Your task to perform on an android device: remove spam from my inbox in the gmail app Image 0: 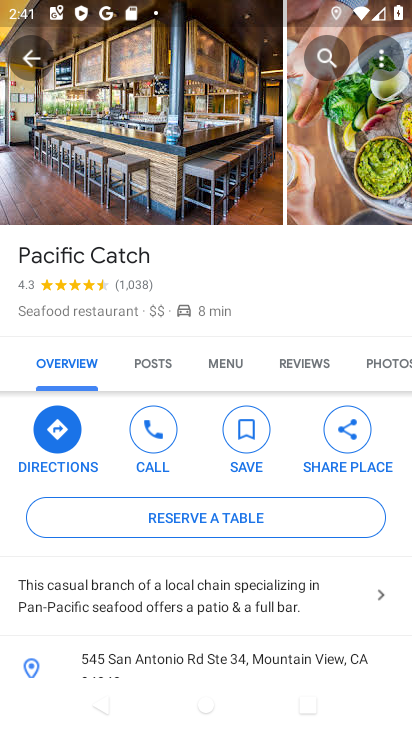
Step 0: press home button
Your task to perform on an android device: remove spam from my inbox in the gmail app Image 1: 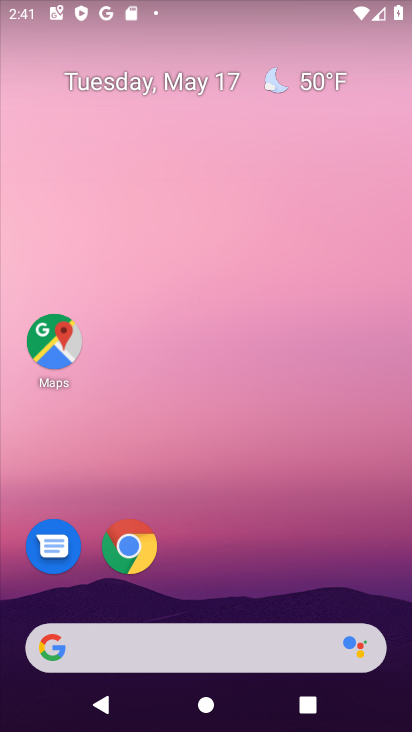
Step 1: drag from (227, 597) to (167, 10)
Your task to perform on an android device: remove spam from my inbox in the gmail app Image 2: 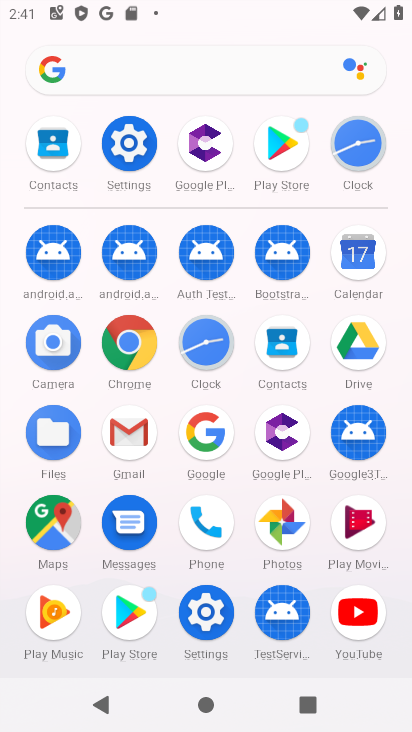
Step 2: click (136, 440)
Your task to perform on an android device: remove spam from my inbox in the gmail app Image 3: 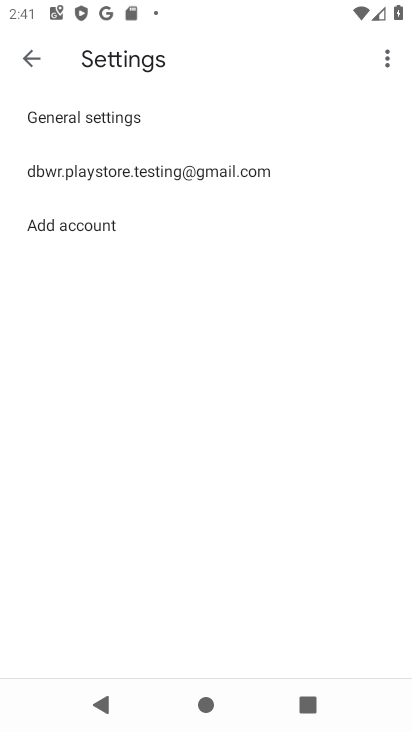
Step 3: click (18, 55)
Your task to perform on an android device: remove spam from my inbox in the gmail app Image 4: 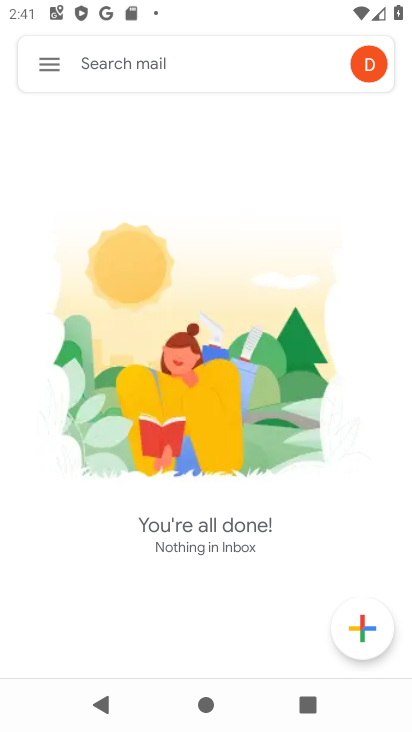
Step 4: click (46, 69)
Your task to perform on an android device: remove spam from my inbox in the gmail app Image 5: 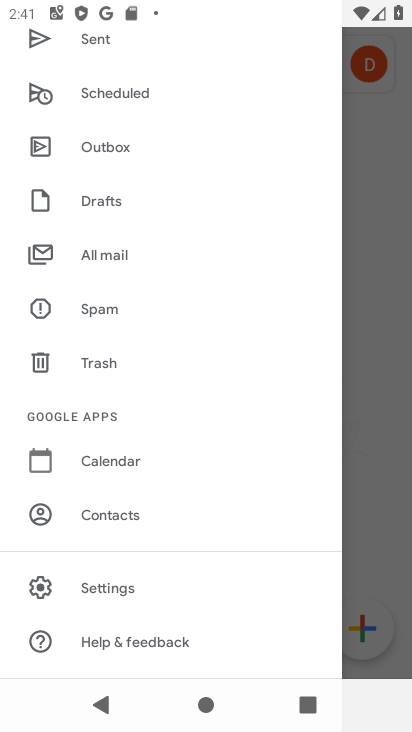
Step 5: click (120, 315)
Your task to perform on an android device: remove spam from my inbox in the gmail app Image 6: 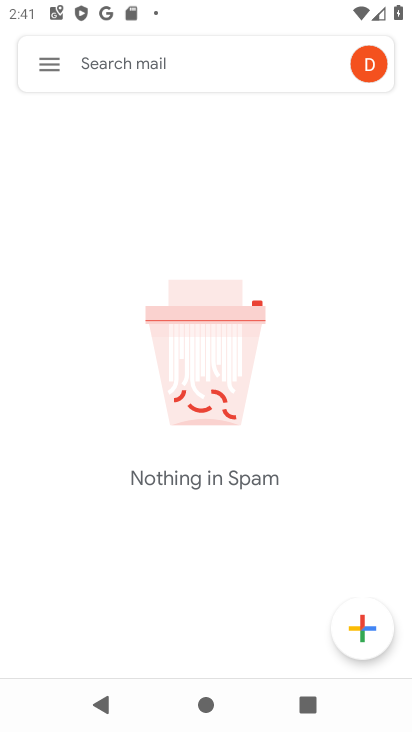
Step 6: task complete